Your task to perform on an android device: search for starred emails in the gmail app Image 0: 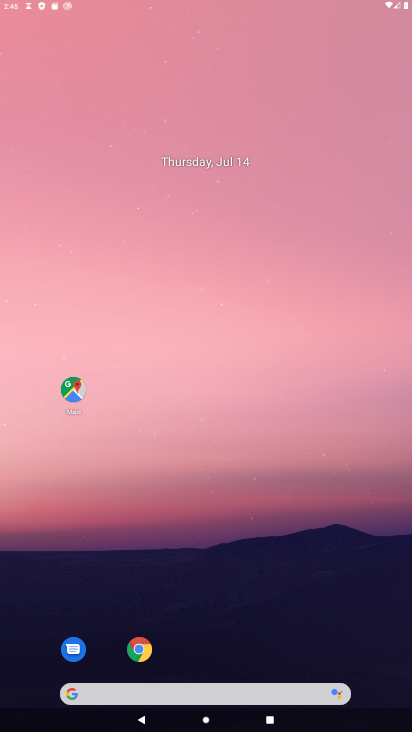
Step 0: click (140, 649)
Your task to perform on an android device: search for starred emails in the gmail app Image 1: 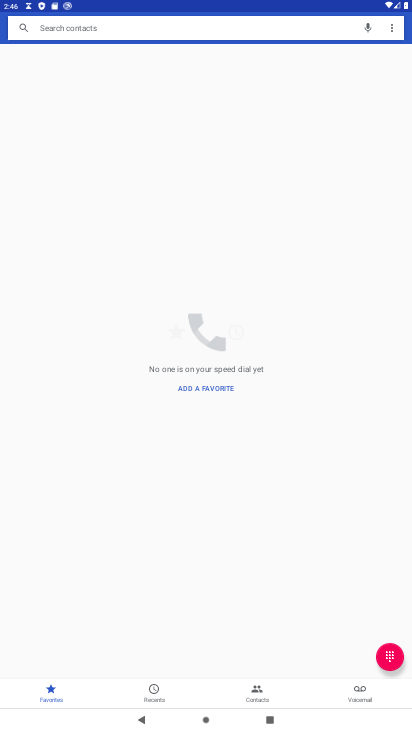
Step 1: press home button
Your task to perform on an android device: search for starred emails in the gmail app Image 2: 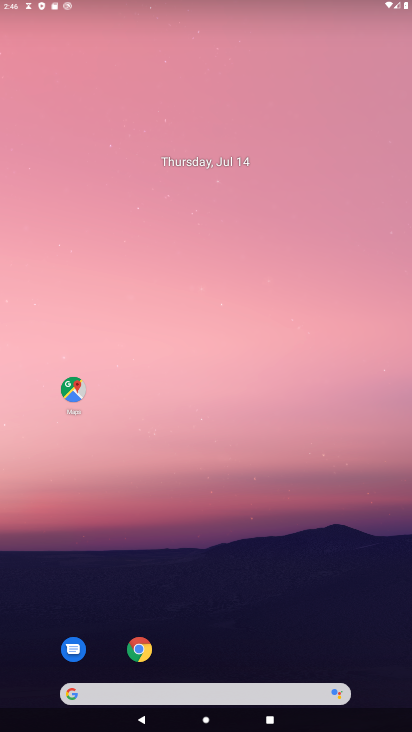
Step 2: drag from (188, 660) to (203, 133)
Your task to perform on an android device: search for starred emails in the gmail app Image 3: 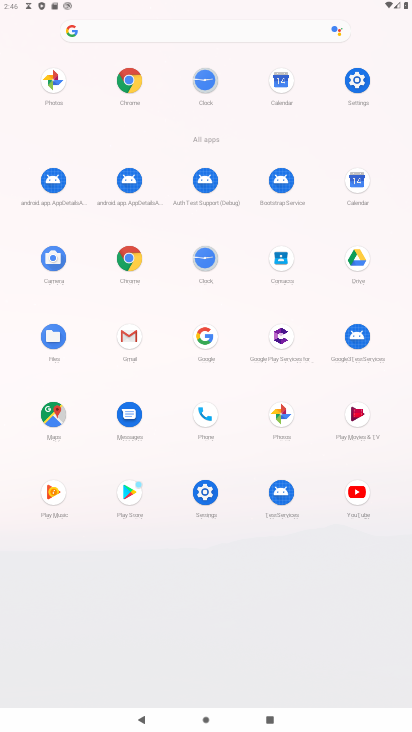
Step 3: click (124, 346)
Your task to perform on an android device: search for starred emails in the gmail app Image 4: 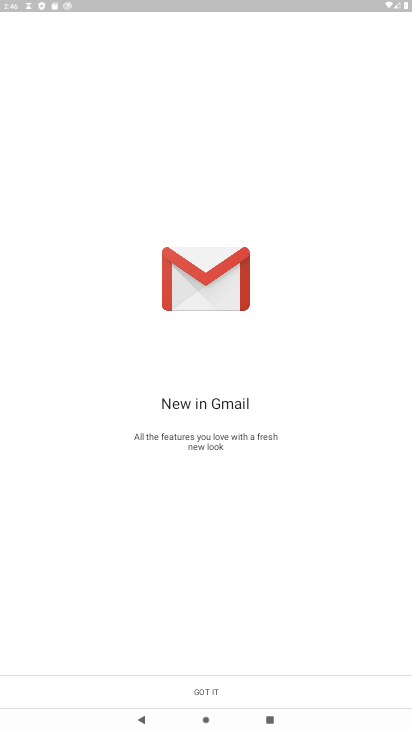
Step 4: click (257, 686)
Your task to perform on an android device: search for starred emails in the gmail app Image 5: 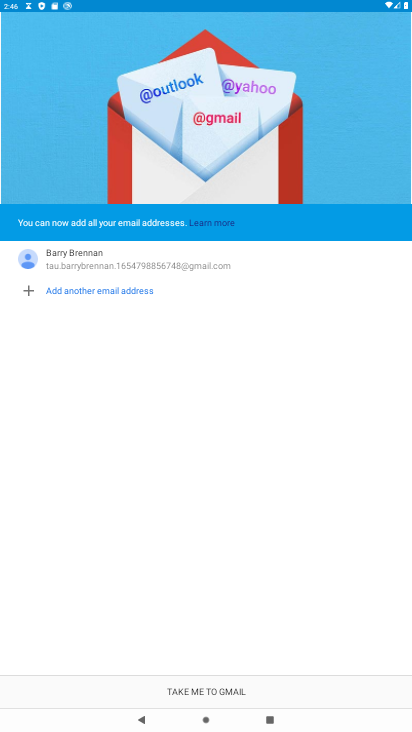
Step 5: click (244, 693)
Your task to perform on an android device: search for starred emails in the gmail app Image 6: 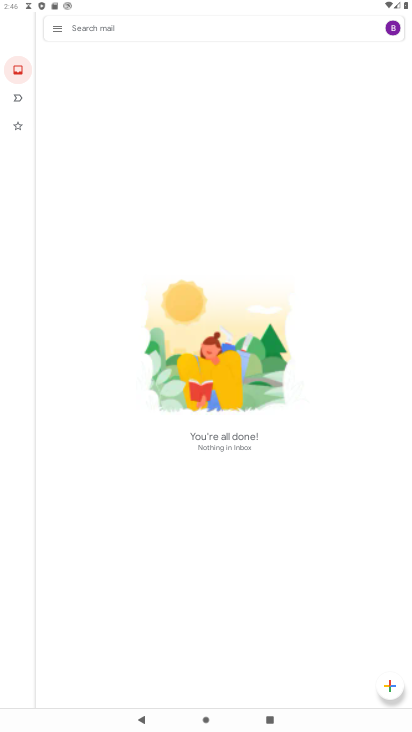
Step 6: click (53, 25)
Your task to perform on an android device: search for starred emails in the gmail app Image 7: 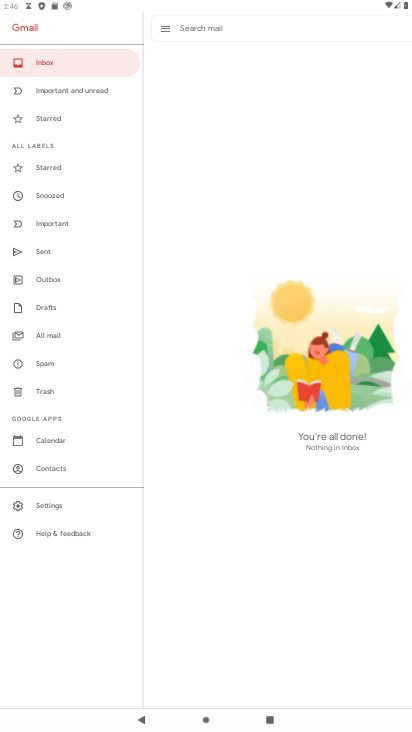
Step 7: click (64, 170)
Your task to perform on an android device: search for starred emails in the gmail app Image 8: 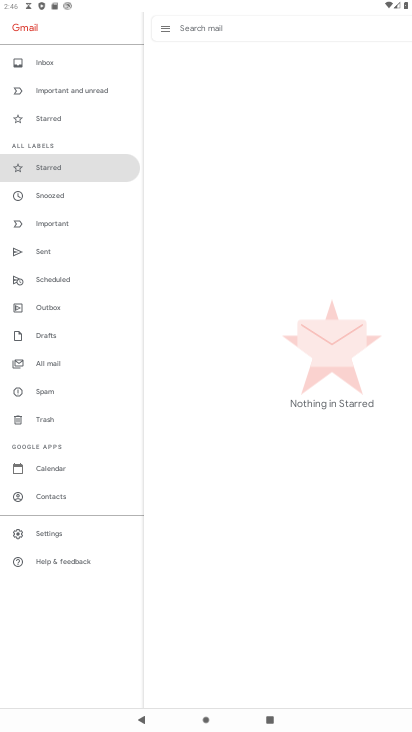
Step 8: task complete